Your task to perform on an android device: Open the web browser Image 0: 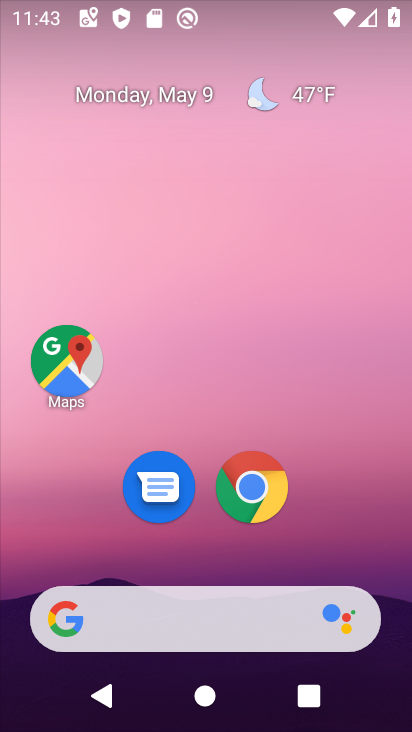
Step 0: click (253, 481)
Your task to perform on an android device: Open the web browser Image 1: 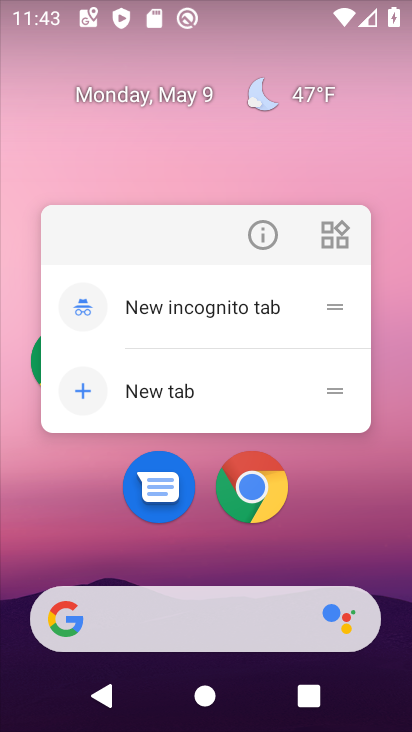
Step 1: click (247, 484)
Your task to perform on an android device: Open the web browser Image 2: 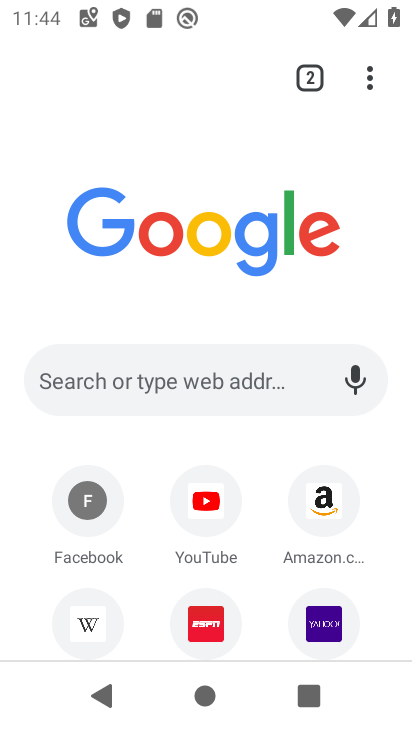
Step 2: task complete